Your task to perform on an android device: allow cookies in the chrome app Image 0: 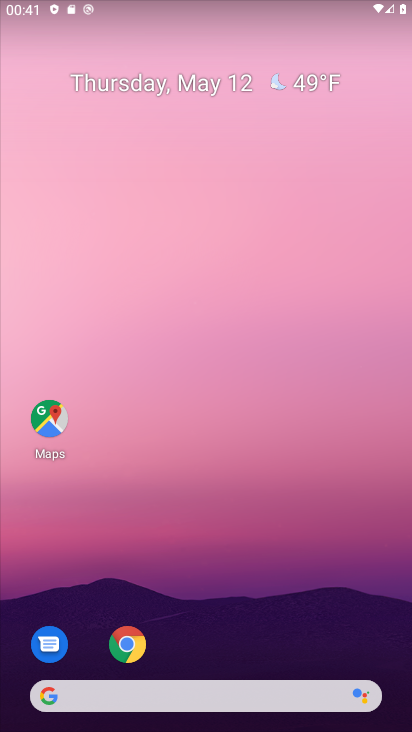
Step 0: drag from (222, 608) to (125, 143)
Your task to perform on an android device: allow cookies in the chrome app Image 1: 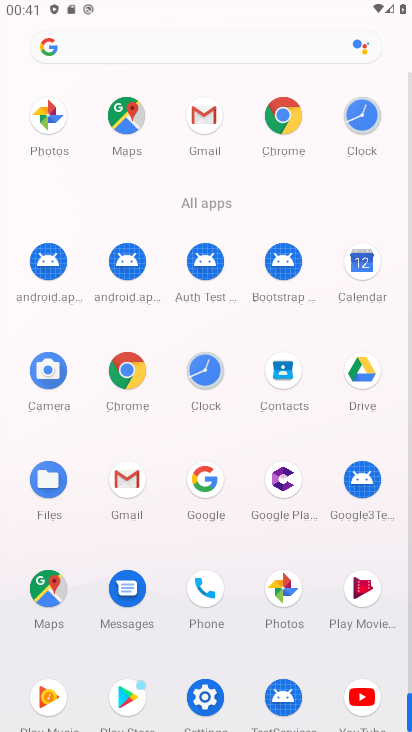
Step 1: click (279, 126)
Your task to perform on an android device: allow cookies in the chrome app Image 2: 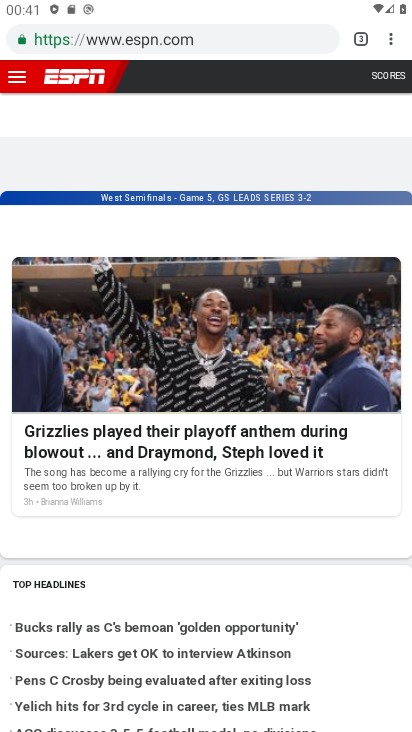
Step 2: click (390, 40)
Your task to perform on an android device: allow cookies in the chrome app Image 3: 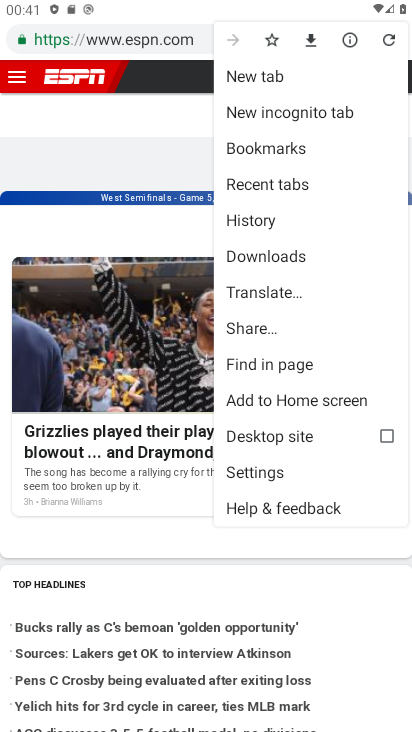
Step 3: click (265, 473)
Your task to perform on an android device: allow cookies in the chrome app Image 4: 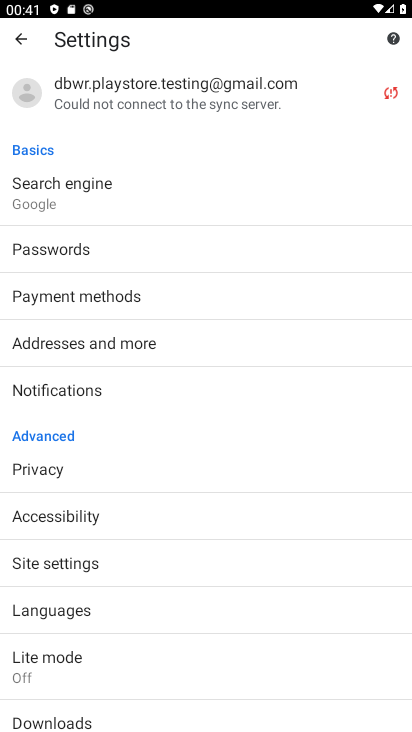
Step 4: drag from (134, 480) to (99, 188)
Your task to perform on an android device: allow cookies in the chrome app Image 5: 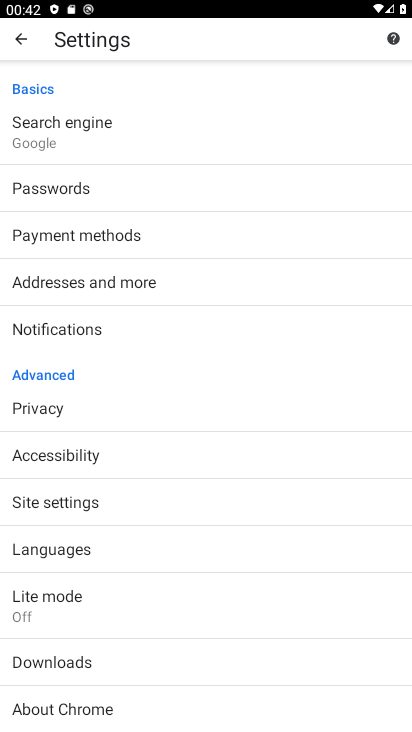
Step 5: click (80, 508)
Your task to perform on an android device: allow cookies in the chrome app Image 6: 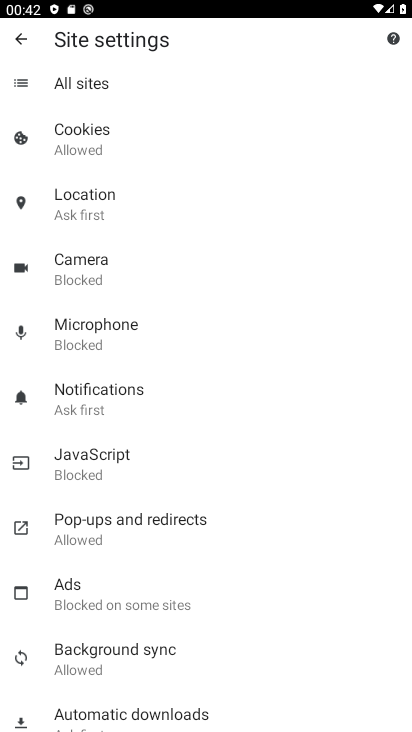
Step 6: click (84, 126)
Your task to perform on an android device: allow cookies in the chrome app Image 7: 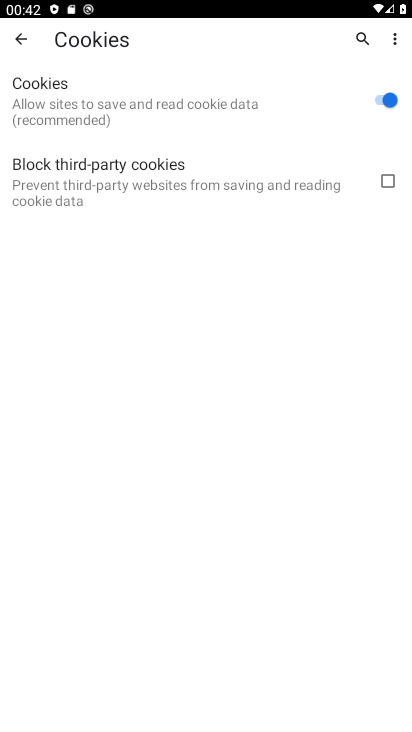
Step 7: task complete